Your task to perform on an android device: Open eBay Image 0: 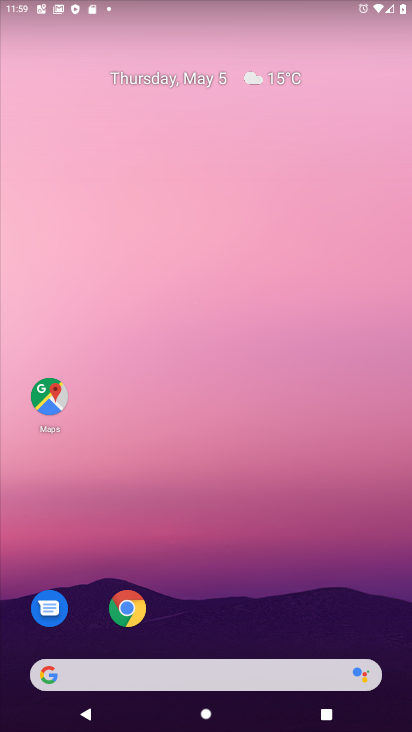
Step 0: click (132, 605)
Your task to perform on an android device: Open eBay Image 1: 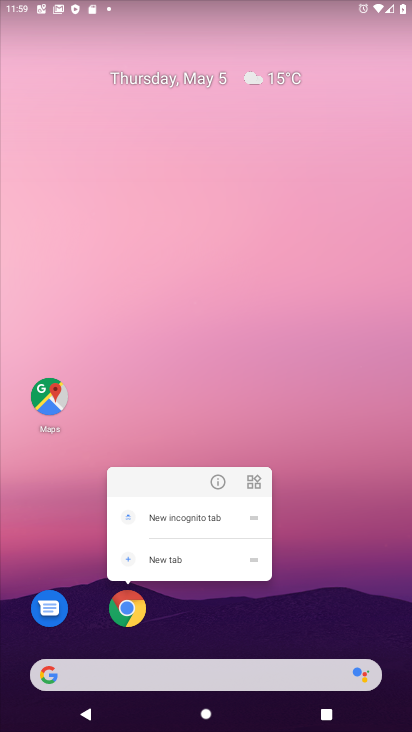
Step 1: click (125, 622)
Your task to perform on an android device: Open eBay Image 2: 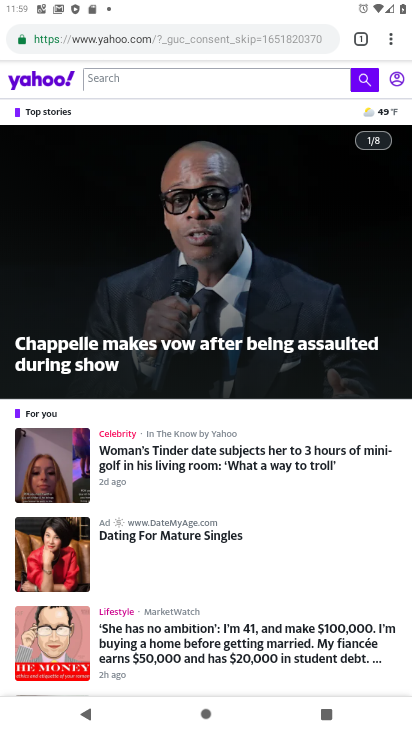
Step 2: click (137, 34)
Your task to perform on an android device: Open eBay Image 3: 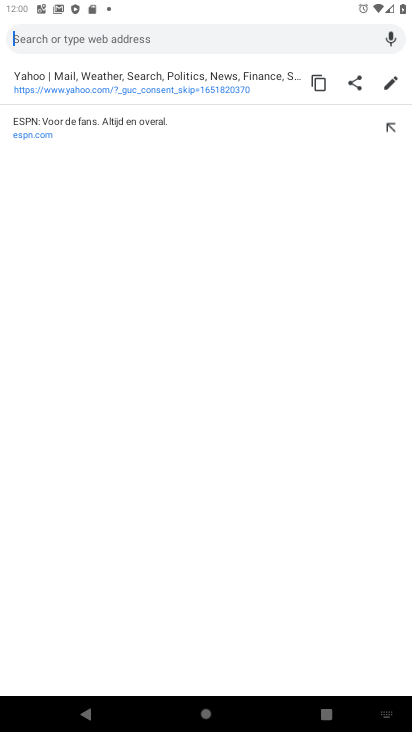
Step 3: type "ebay"
Your task to perform on an android device: Open eBay Image 4: 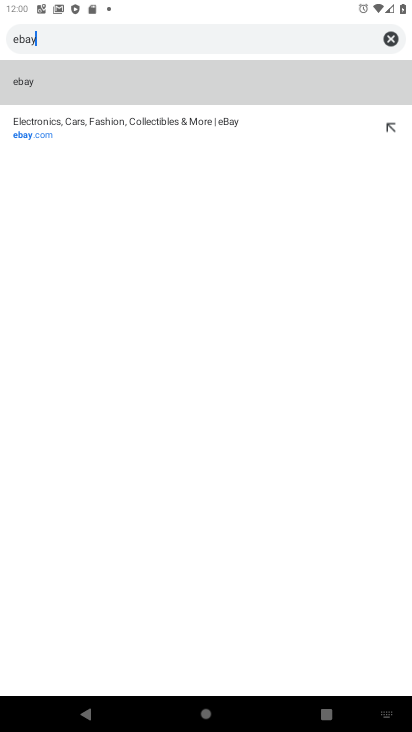
Step 4: click (56, 141)
Your task to perform on an android device: Open eBay Image 5: 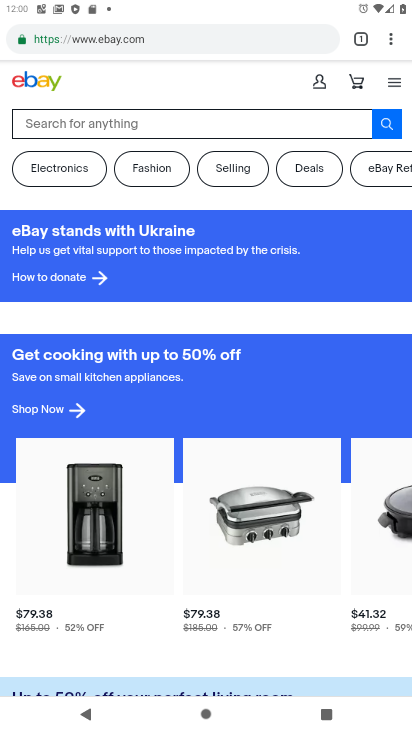
Step 5: task complete